Your task to perform on an android device: Open the calendar and show me this week's events Image 0: 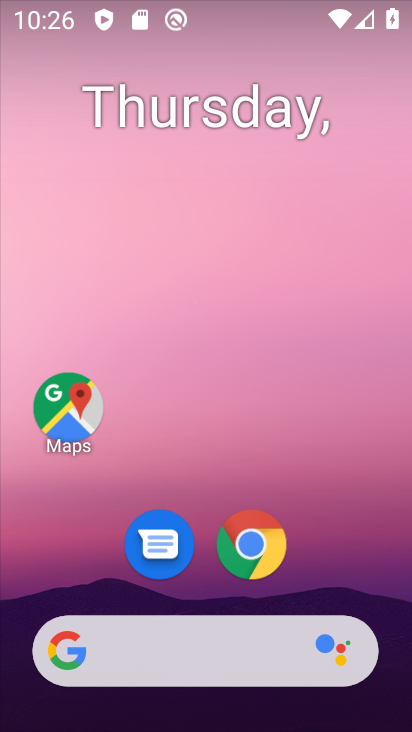
Step 0: drag from (315, 528) to (117, 104)
Your task to perform on an android device: Open the calendar and show me this week's events Image 1: 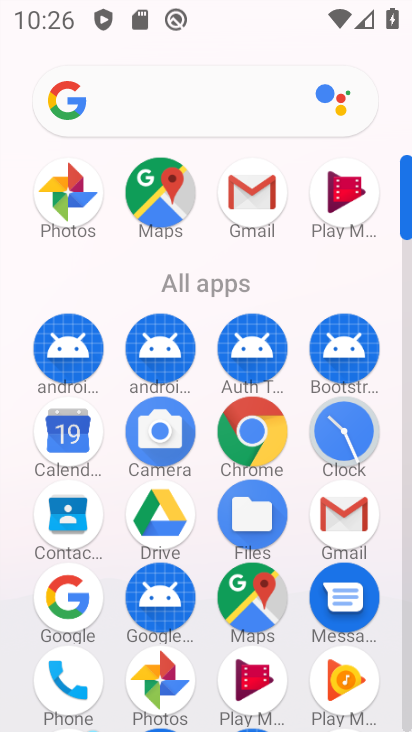
Step 1: click (62, 416)
Your task to perform on an android device: Open the calendar and show me this week's events Image 2: 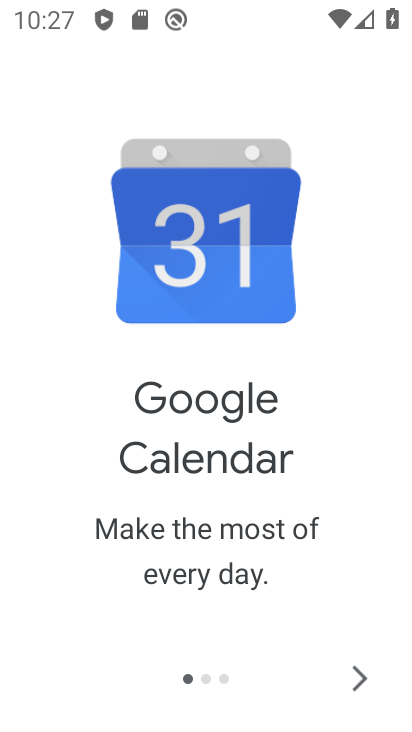
Step 2: click (355, 676)
Your task to perform on an android device: Open the calendar and show me this week's events Image 3: 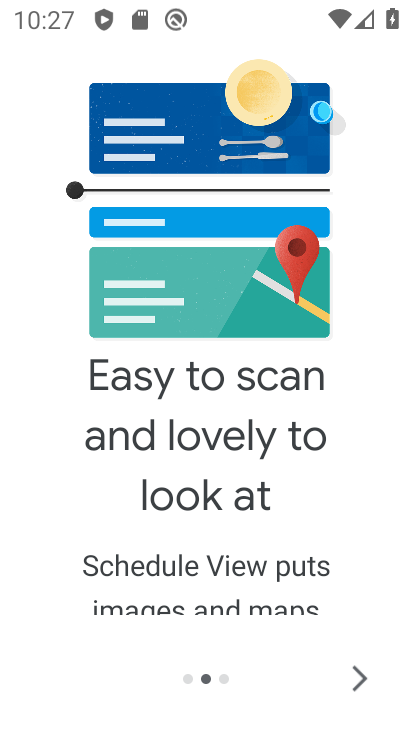
Step 3: click (359, 682)
Your task to perform on an android device: Open the calendar and show me this week's events Image 4: 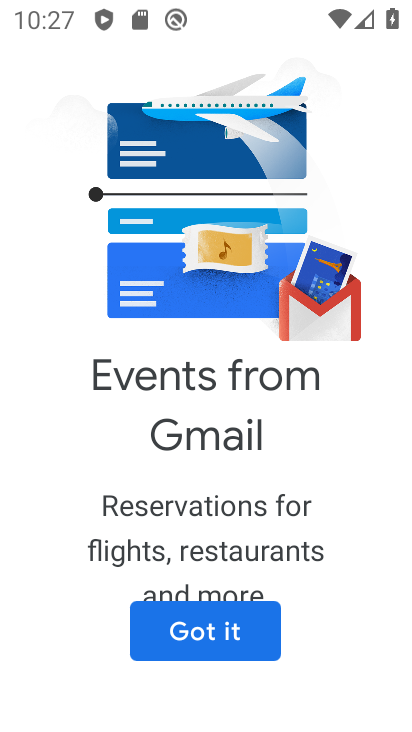
Step 4: click (206, 636)
Your task to perform on an android device: Open the calendar and show me this week's events Image 5: 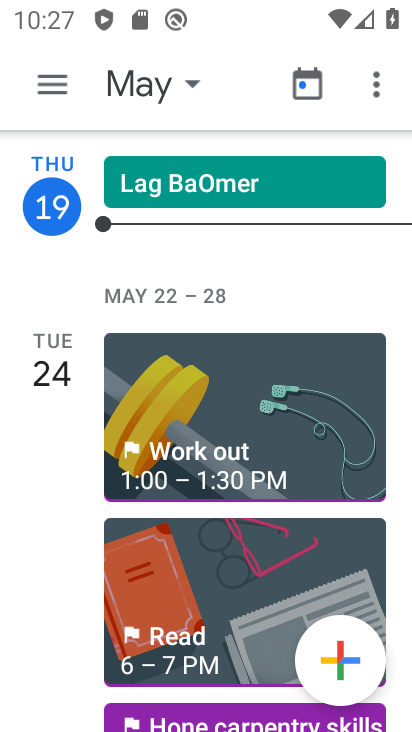
Step 5: click (45, 81)
Your task to perform on an android device: Open the calendar and show me this week's events Image 6: 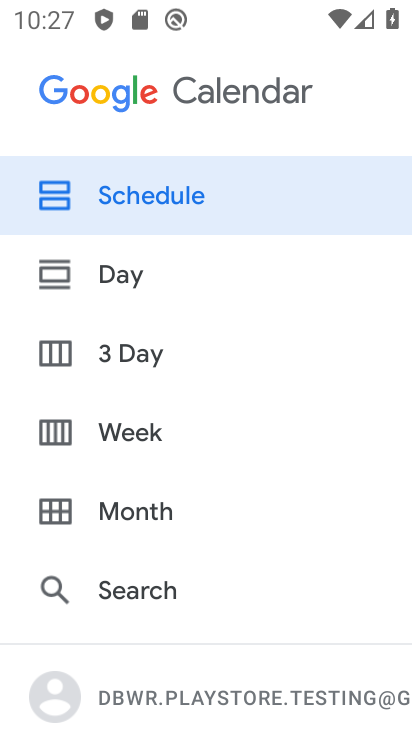
Step 6: click (153, 433)
Your task to perform on an android device: Open the calendar and show me this week's events Image 7: 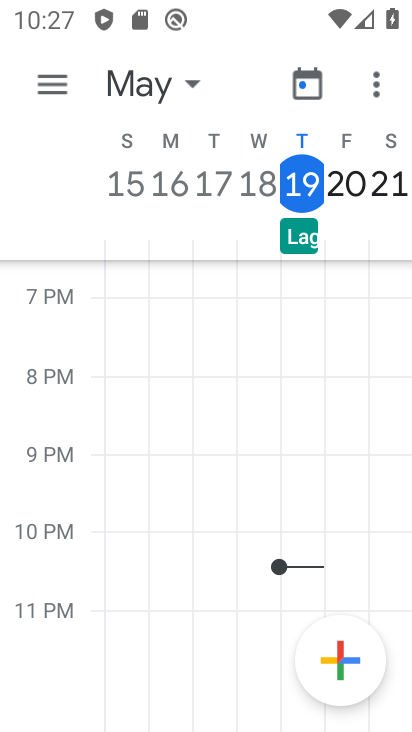
Step 7: task complete